Your task to perform on an android device: Go to internet settings Image 0: 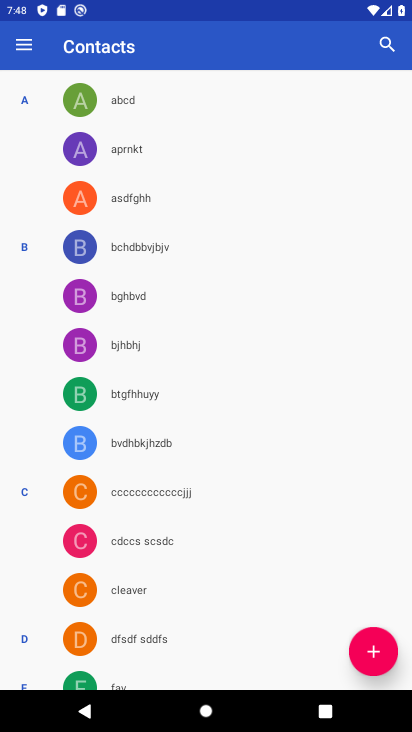
Step 0: press home button
Your task to perform on an android device: Go to internet settings Image 1: 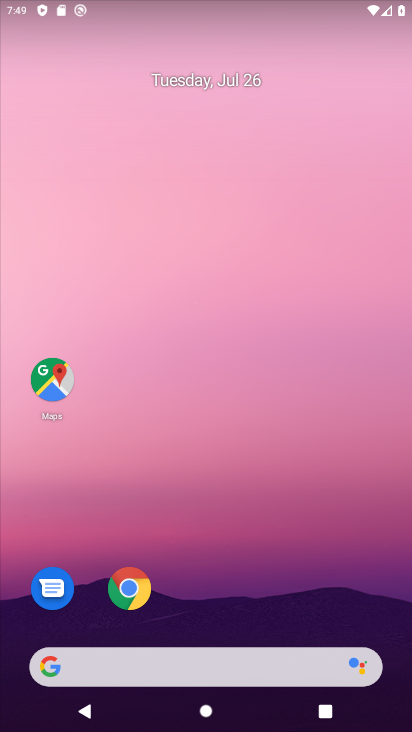
Step 1: drag from (203, 646) to (195, 231)
Your task to perform on an android device: Go to internet settings Image 2: 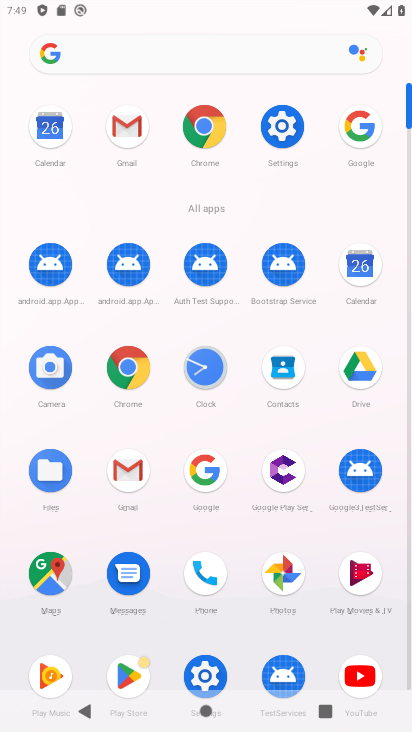
Step 2: click (271, 120)
Your task to perform on an android device: Go to internet settings Image 3: 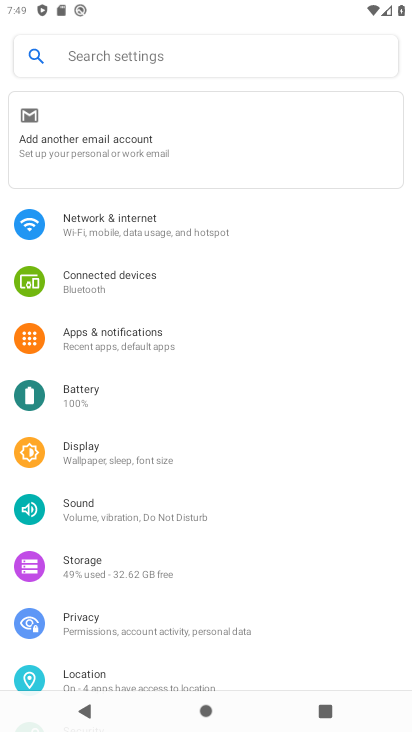
Step 3: task complete